Your task to perform on an android device: Turn on the flashlight Image 0: 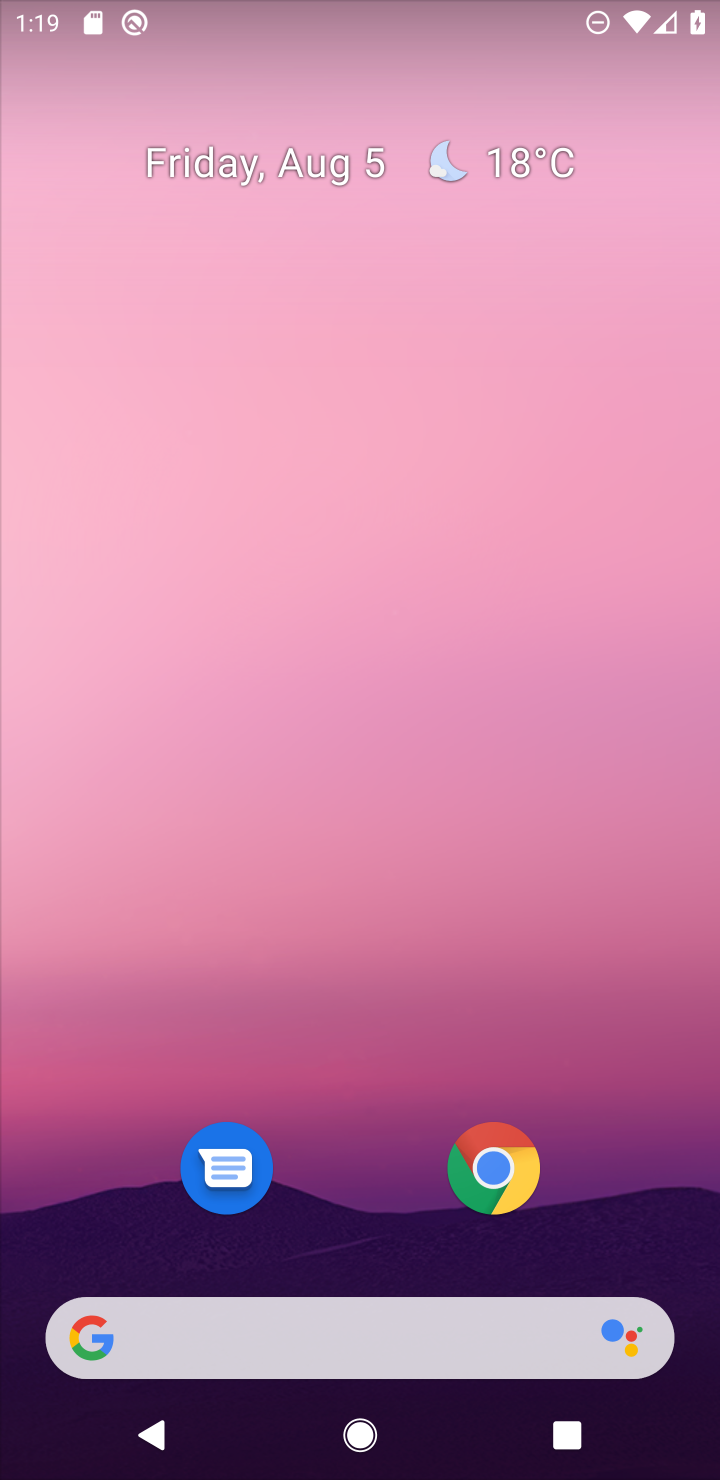
Step 0: drag from (322, 1232) to (312, 100)
Your task to perform on an android device: Turn on the flashlight Image 1: 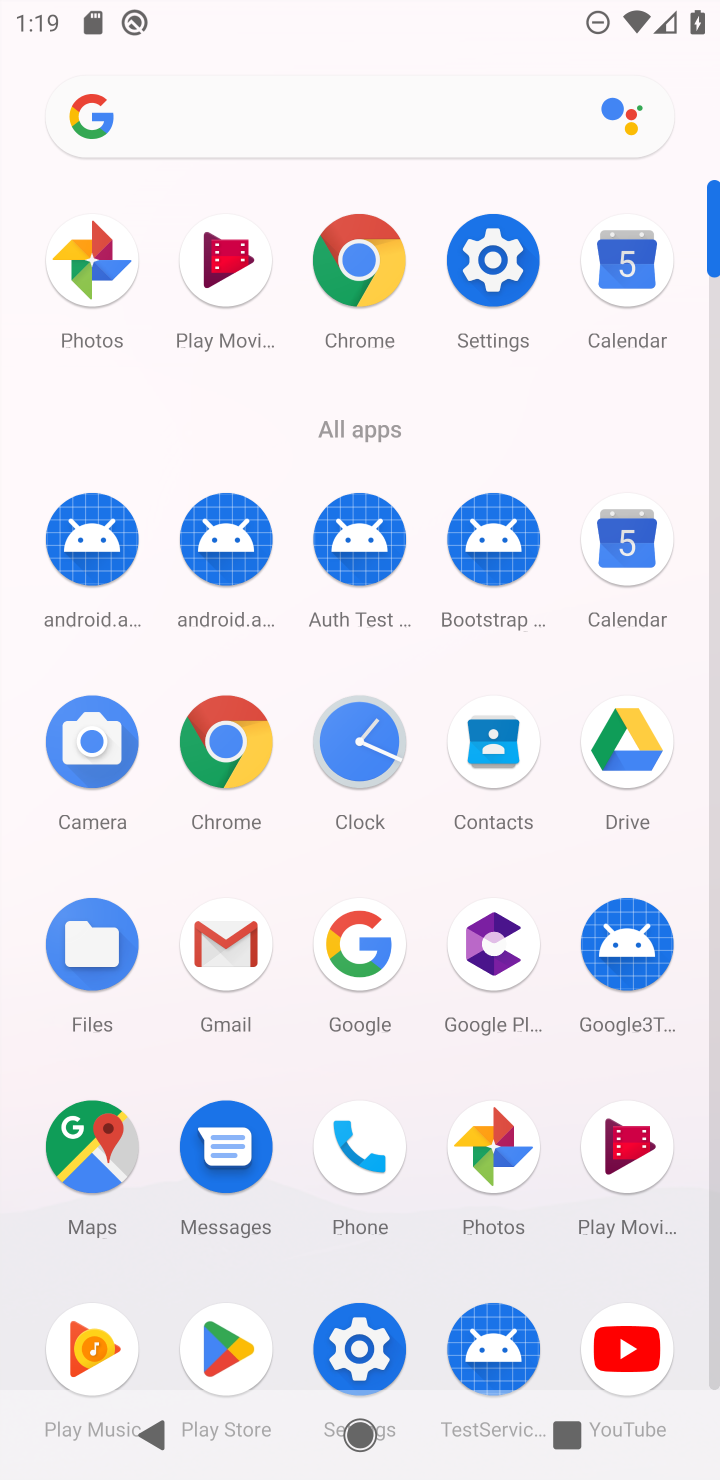
Step 1: click (479, 232)
Your task to perform on an android device: Turn on the flashlight Image 2: 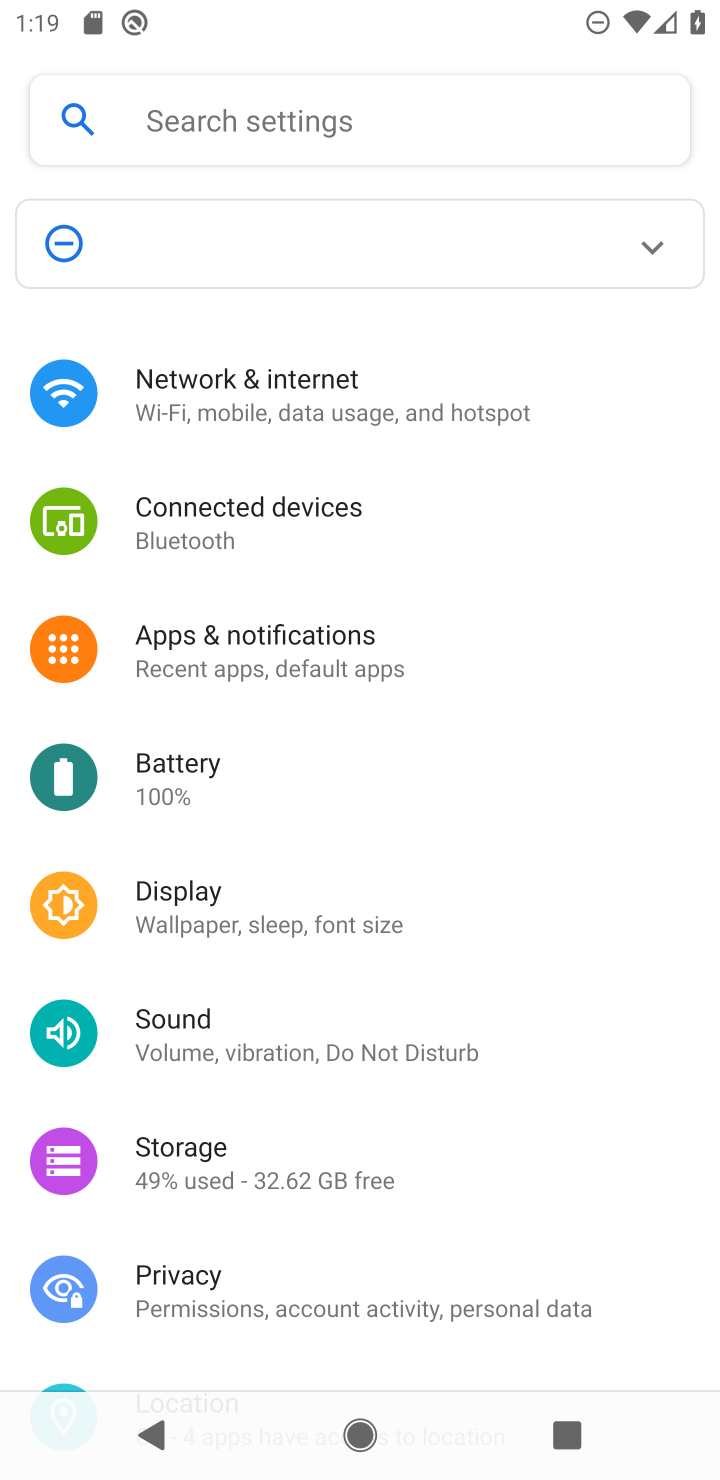
Step 2: click (341, 114)
Your task to perform on an android device: Turn on the flashlight Image 3: 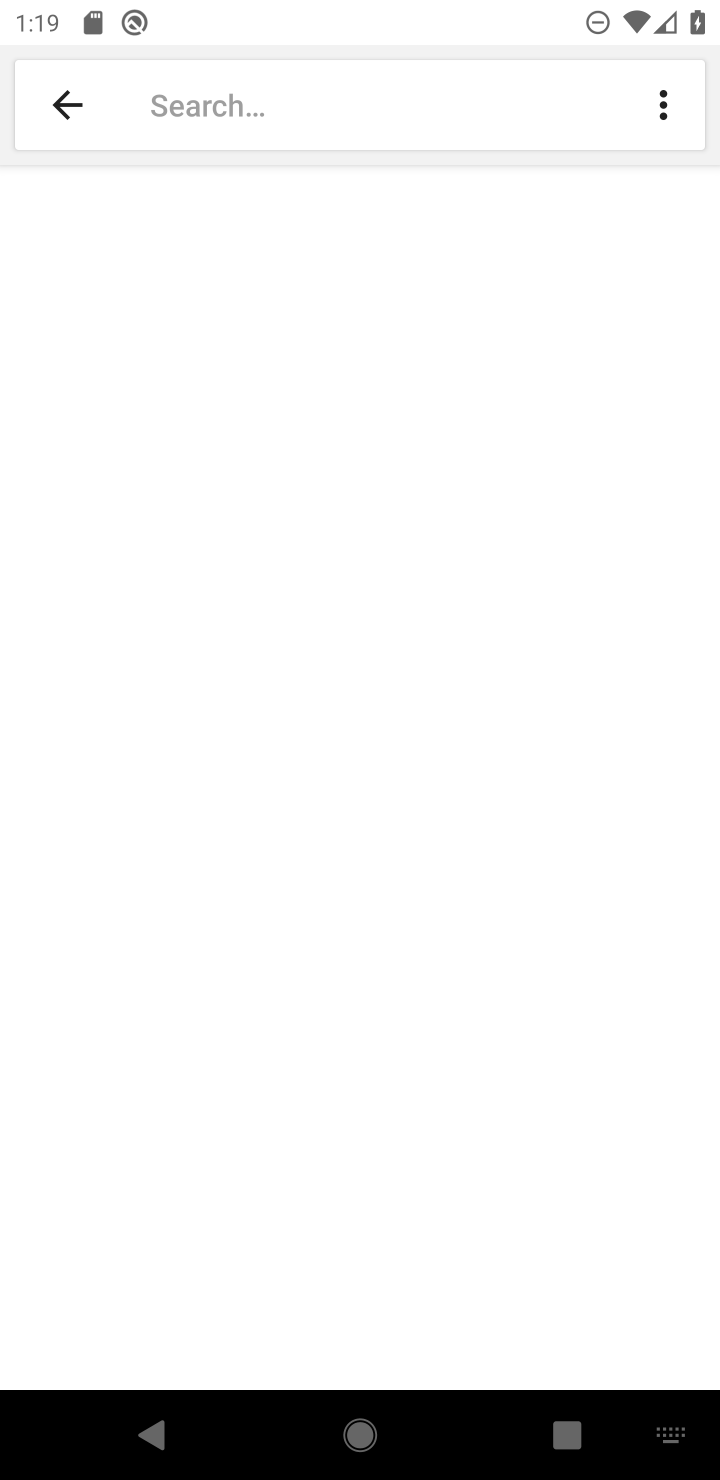
Step 3: type "flashlight"
Your task to perform on an android device: Turn on the flashlight Image 4: 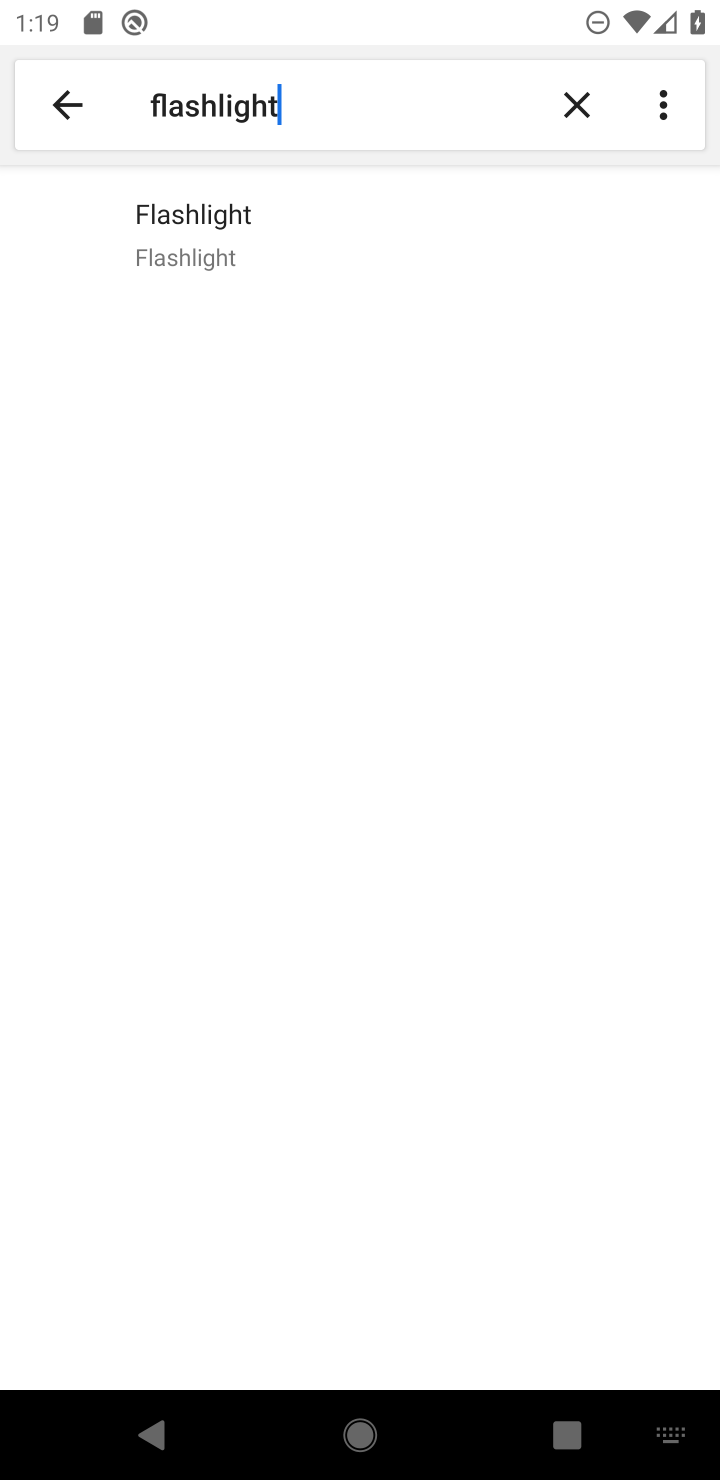
Step 4: click (290, 239)
Your task to perform on an android device: Turn on the flashlight Image 5: 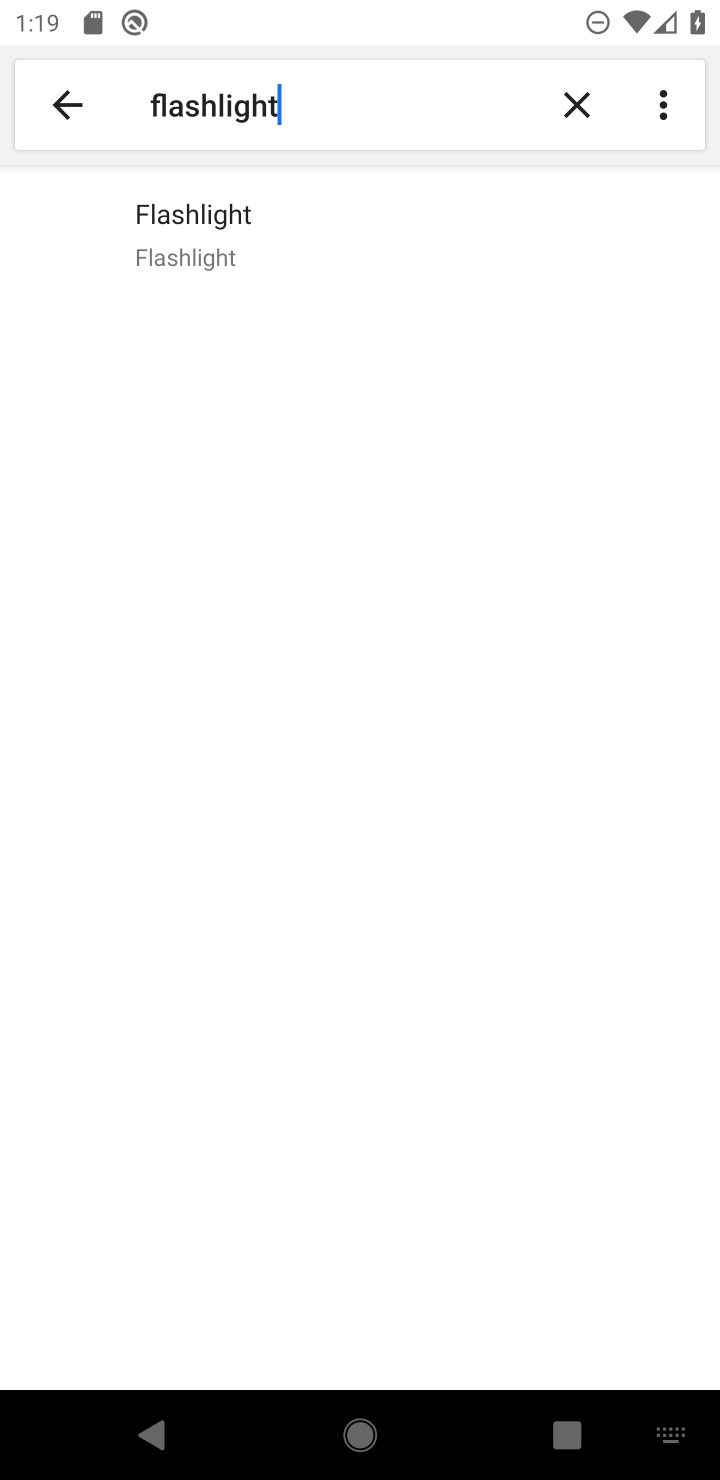
Step 5: task complete